Your task to perform on an android device: Open the calendar and show me this week's events? Image 0: 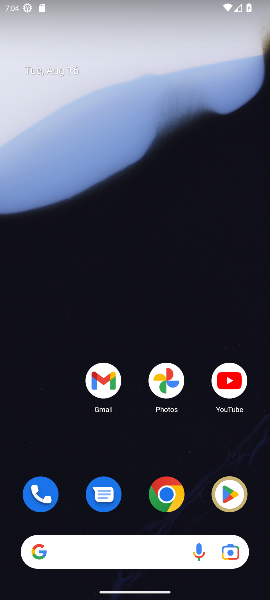
Step 0: drag from (51, 381) to (108, 69)
Your task to perform on an android device: Open the calendar and show me this week's events? Image 1: 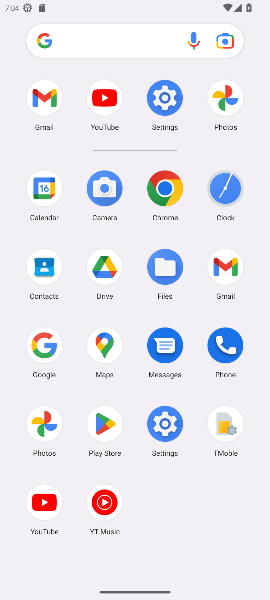
Step 1: click (48, 197)
Your task to perform on an android device: Open the calendar and show me this week's events? Image 2: 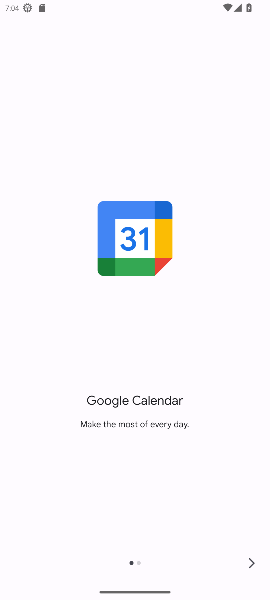
Step 2: click (247, 564)
Your task to perform on an android device: Open the calendar and show me this week's events? Image 3: 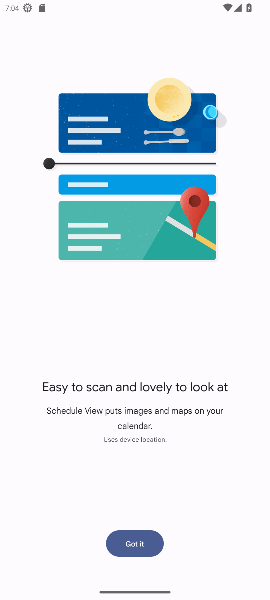
Step 3: click (252, 558)
Your task to perform on an android device: Open the calendar and show me this week's events? Image 4: 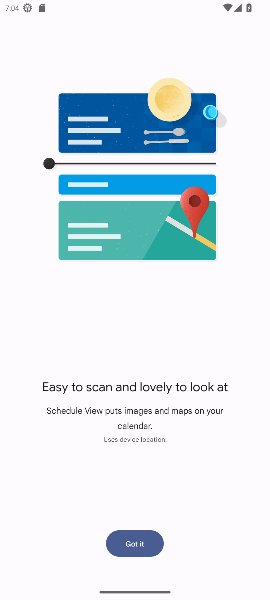
Step 4: click (128, 539)
Your task to perform on an android device: Open the calendar and show me this week's events? Image 5: 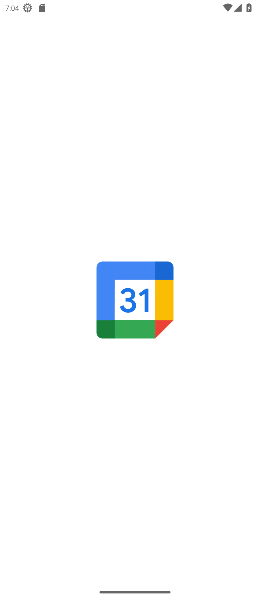
Step 5: task complete